Your task to perform on an android device: check google app version Image 0: 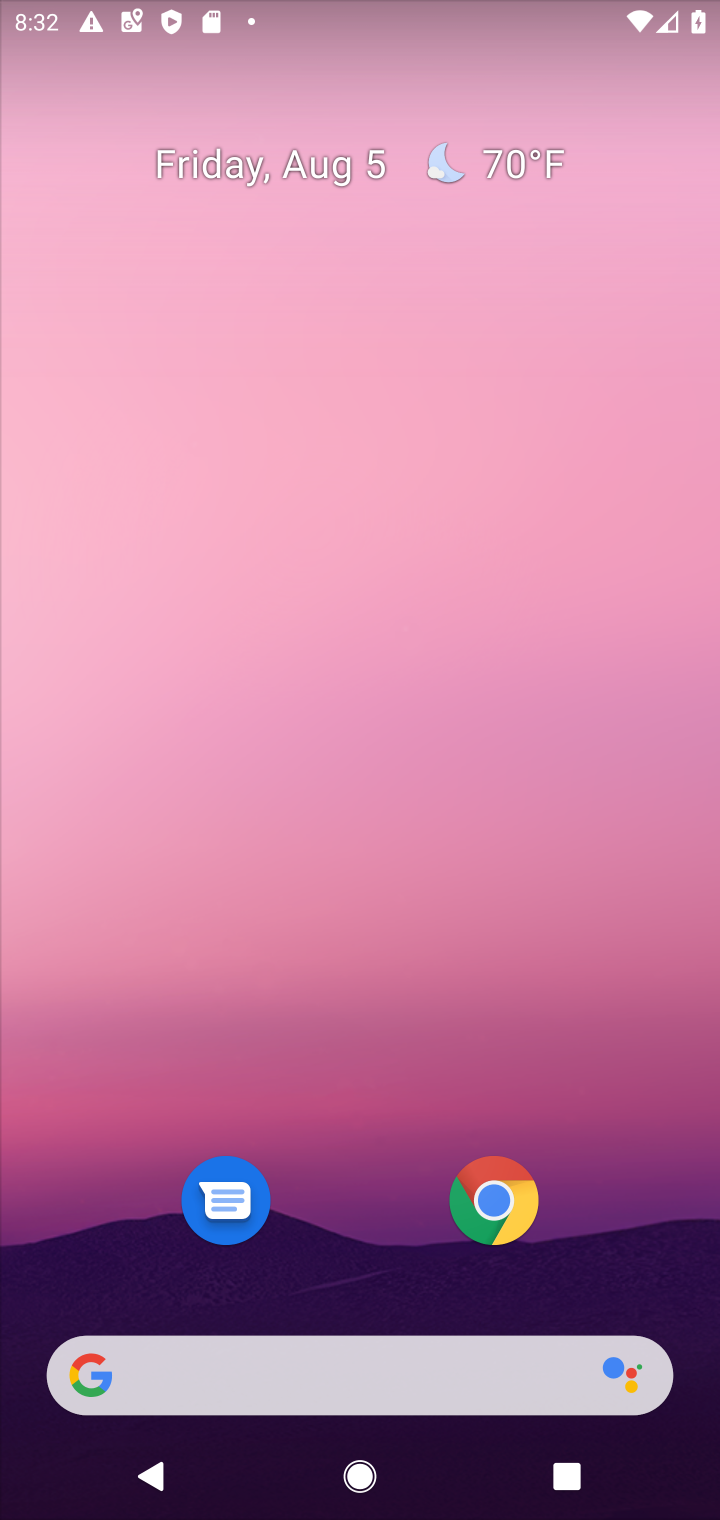
Step 0: drag from (328, 1297) to (328, 619)
Your task to perform on an android device: check google app version Image 1: 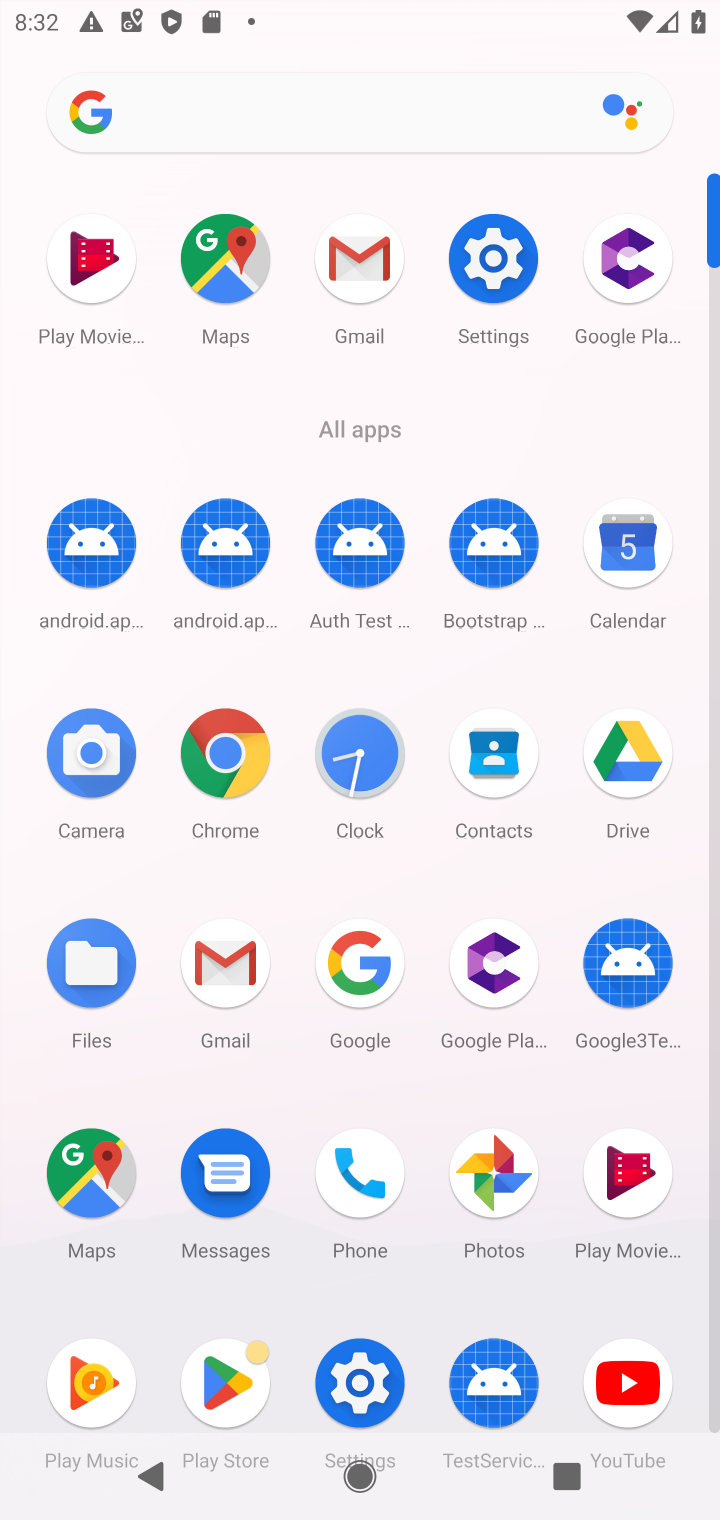
Step 1: click (383, 924)
Your task to perform on an android device: check google app version Image 2: 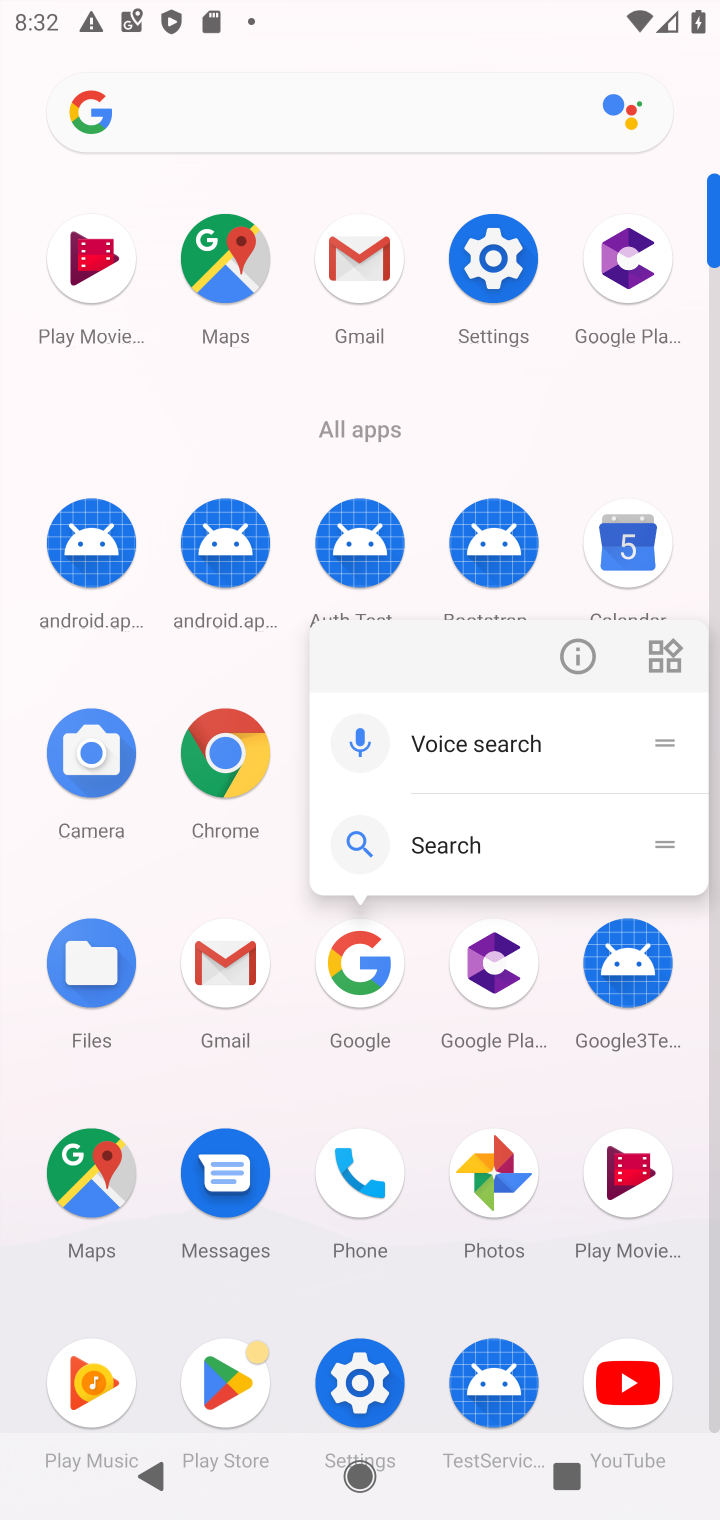
Step 2: click (580, 661)
Your task to perform on an android device: check google app version Image 3: 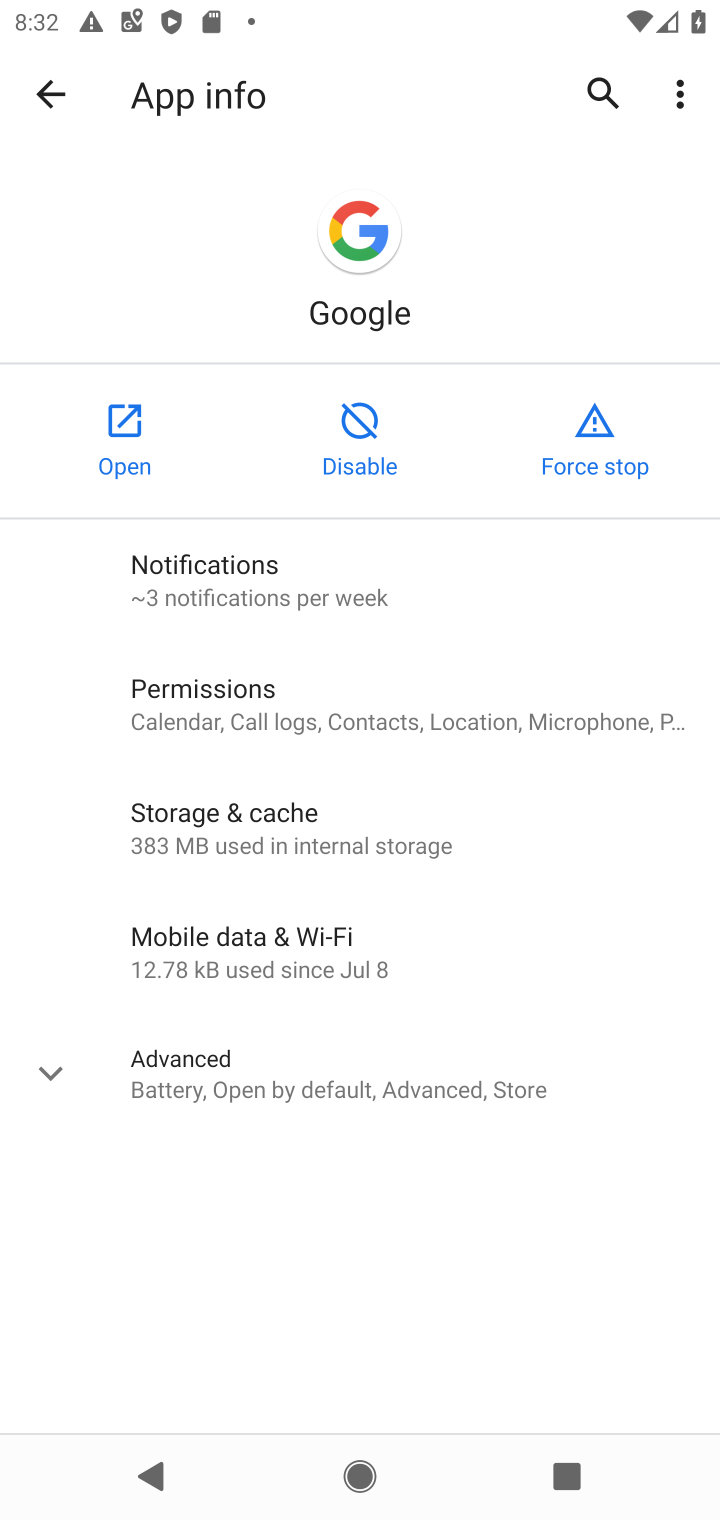
Step 3: click (152, 1077)
Your task to perform on an android device: check google app version Image 4: 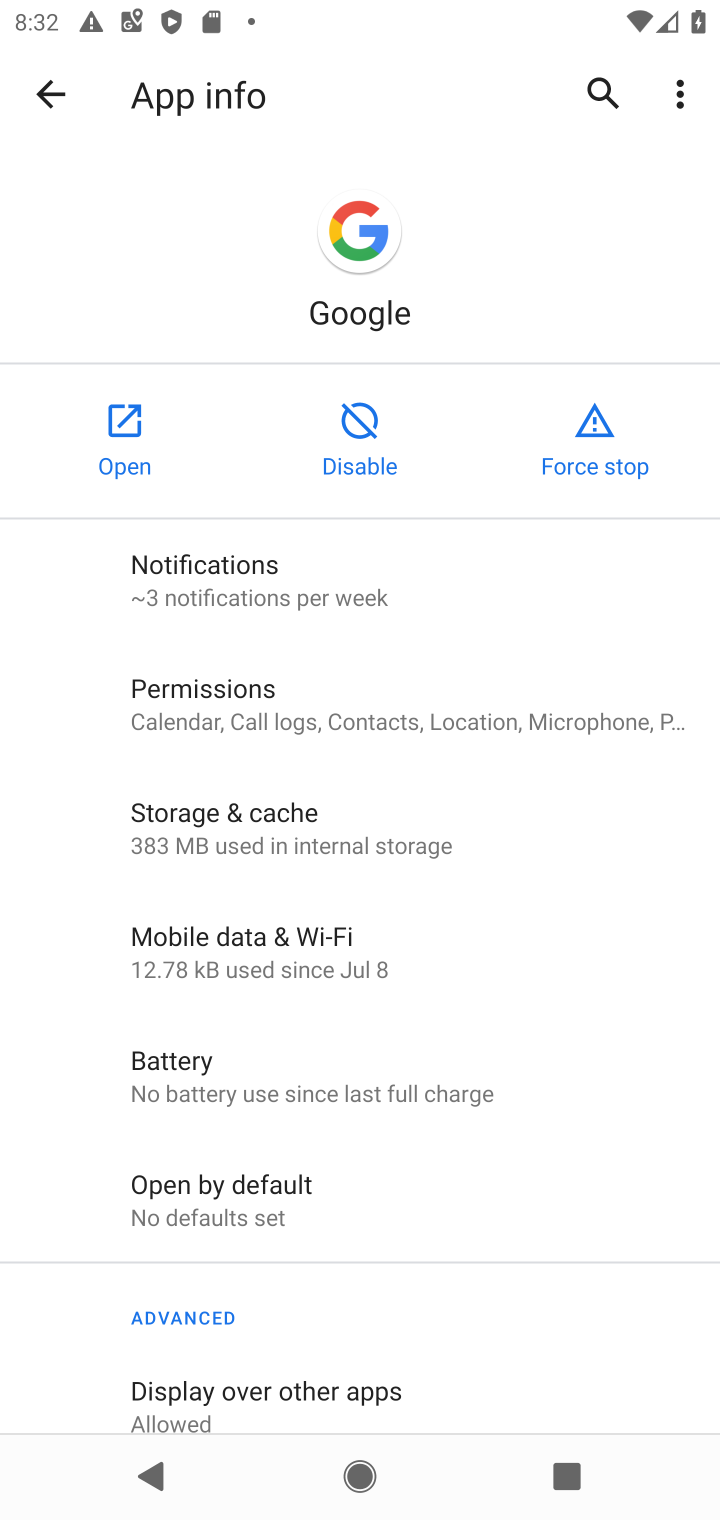
Step 4: task complete